Your task to perform on an android device: Open Google Maps and go to "Timeline" Image 0: 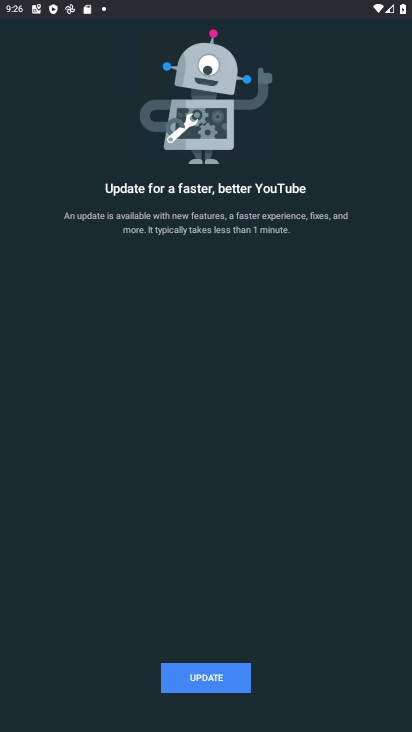
Step 0: press home button
Your task to perform on an android device: Open Google Maps and go to "Timeline" Image 1: 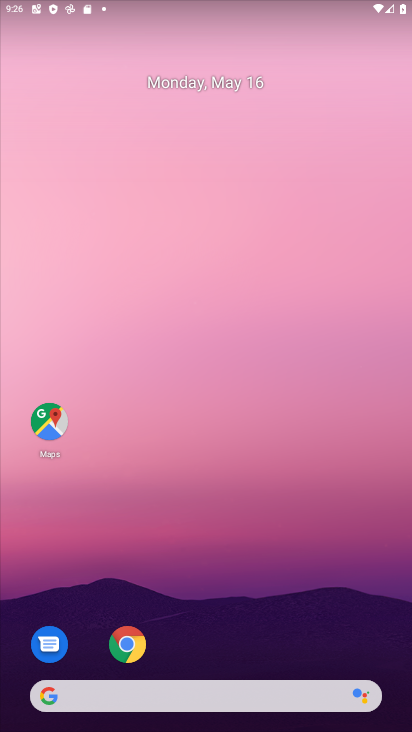
Step 1: click (53, 440)
Your task to perform on an android device: Open Google Maps and go to "Timeline" Image 2: 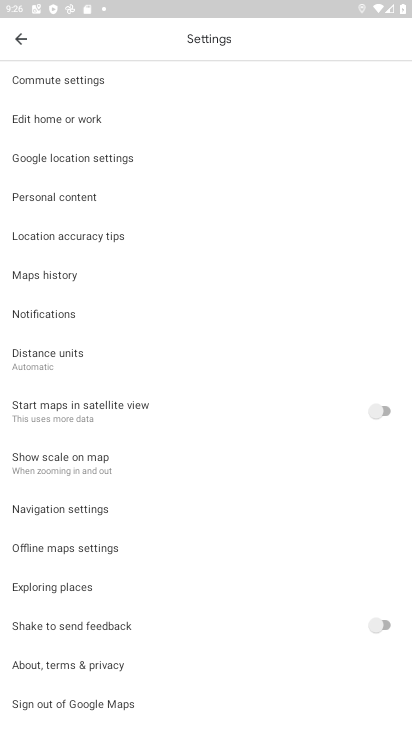
Step 2: click (22, 42)
Your task to perform on an android device: Open Google Maps and go to "Timeline" Image 3: 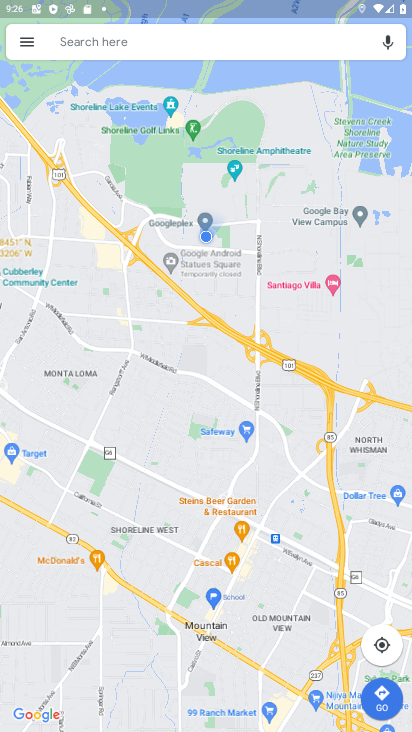
Step 3: click (24, 42)
Your task to perform on an android device: Open Google Maps and go to "Timeline" Image 4: 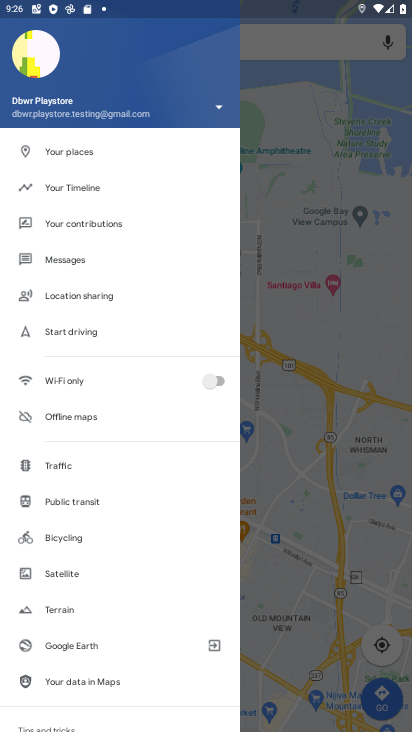
Step 4: click (112, 186)
Your task to perform on an android device: Open Google Maps and go to "Timeline" Image 5: 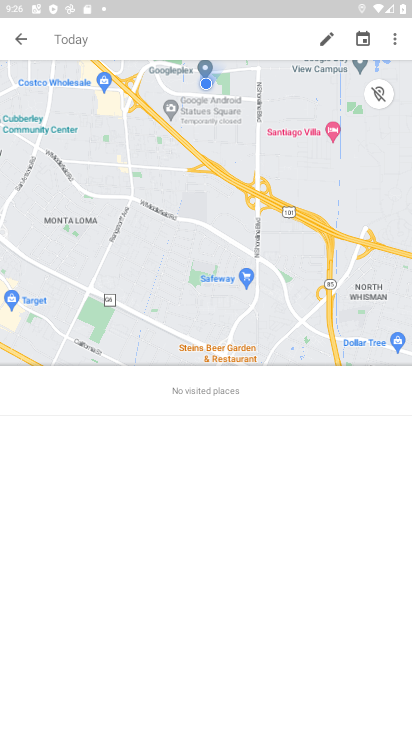
Step 5: task complete